Your task to perform on an android device: snooze an email in the gmail app Image 0: 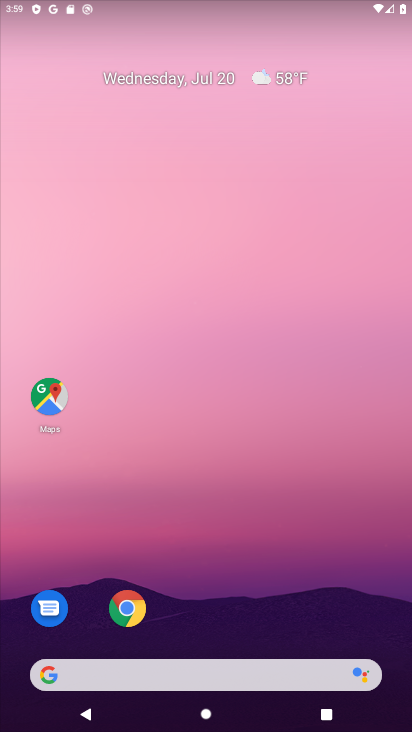
Step 0: drag from (196, 598) to (273, 4)
Your task to perform on an android device: snooze an email in the gmail app Image 1: 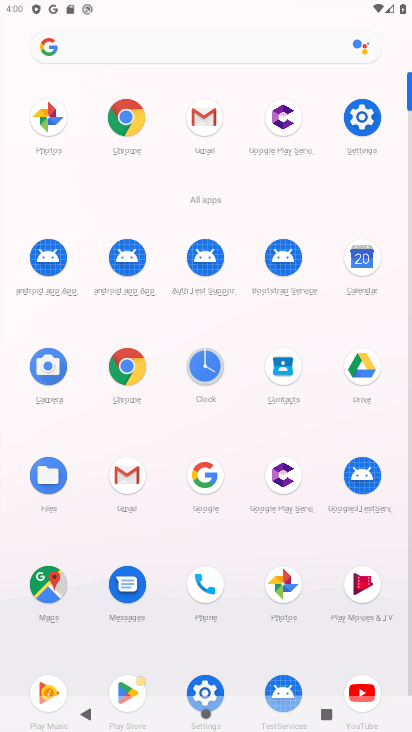
Step 1: click (126, 491)
Your task to perform on an android device: snooze an email in the gmail app Image 2: 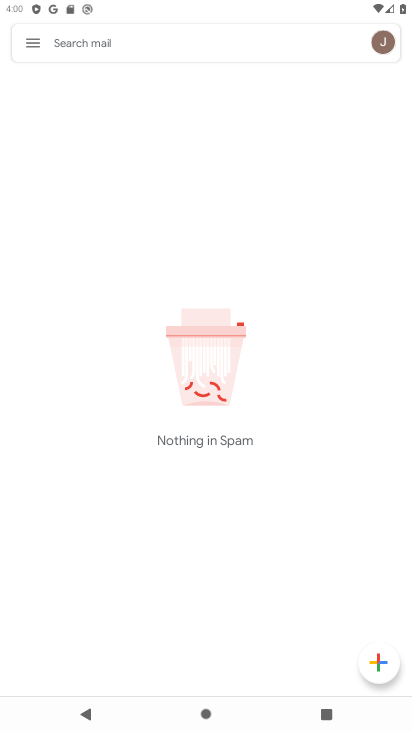
Step 2: click (21, 35)
Your task to perform on an android device: snooze an email in the gmail app Image 3: 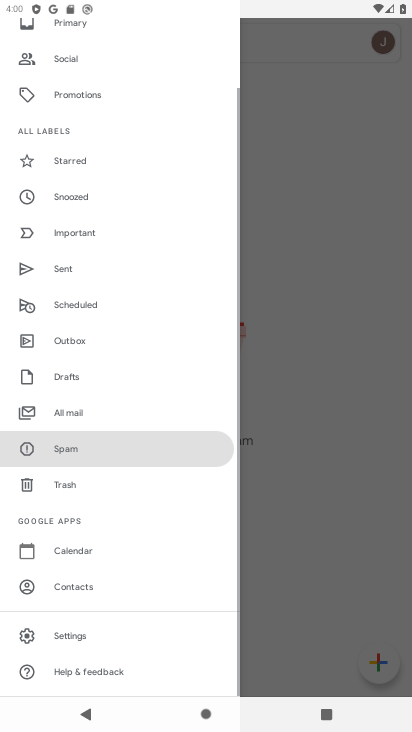
Step 3: drag from (111, 86) to (89, 603)
Your task to perform on an android device: snooze an email in the gmail app Image 4: 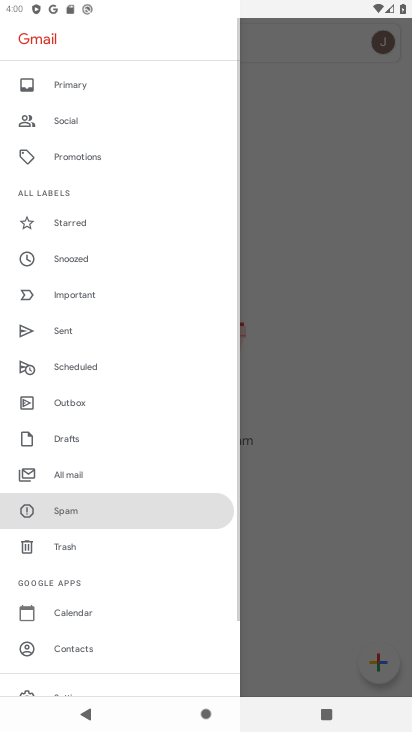
Step 4: click (93, 81)
Your task to perform on an android device: snooze an email in the gmail app Image 5: 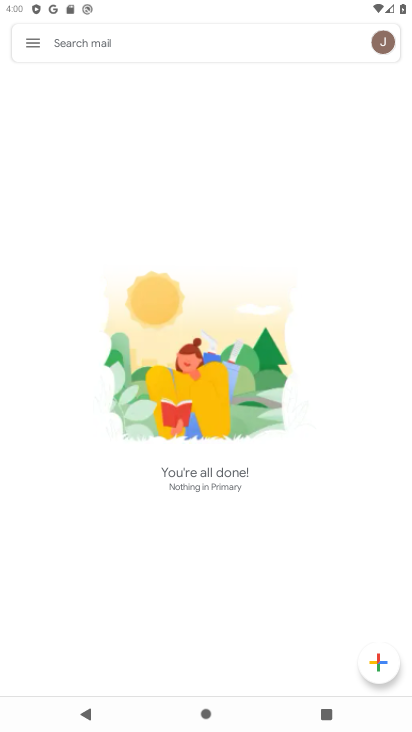
Step 5: task complete